Your task to perform on an android device: delete location history Image 0: 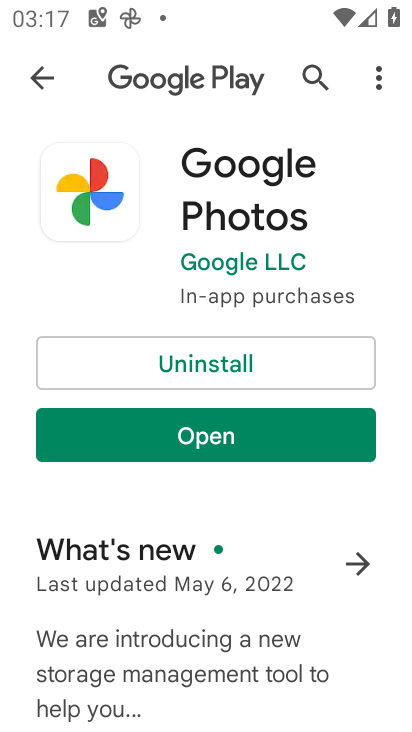
Step 0: press home button
Your task to perform on an android device: delete location history Image 1: 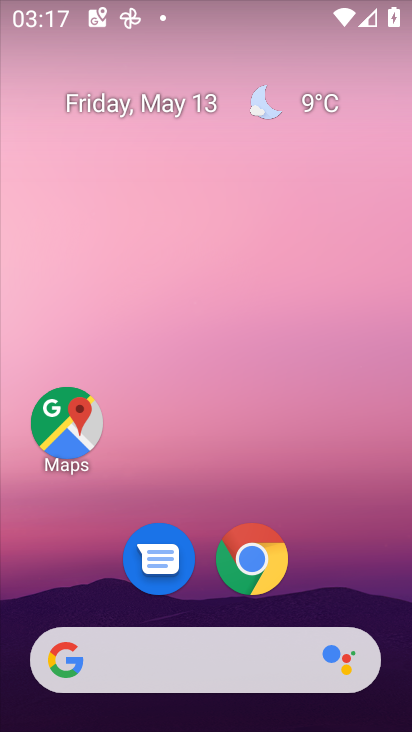
Step 1: click (80, 429)
Your task to perform on an android device: delete location history Image 2: 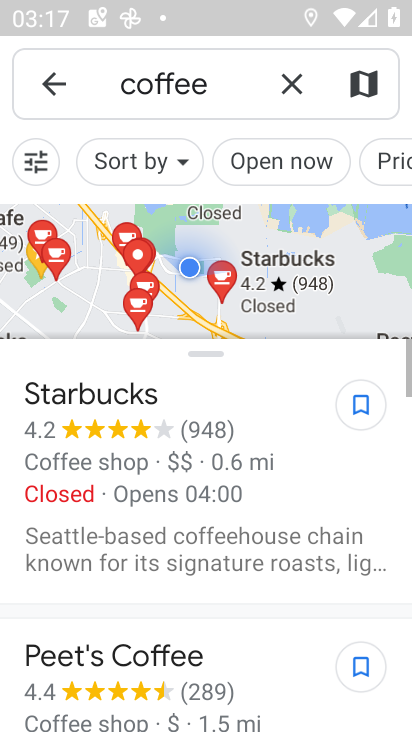
Step 2: click (58, 79)
Your task to perform on an android device: delete location history Image 3: 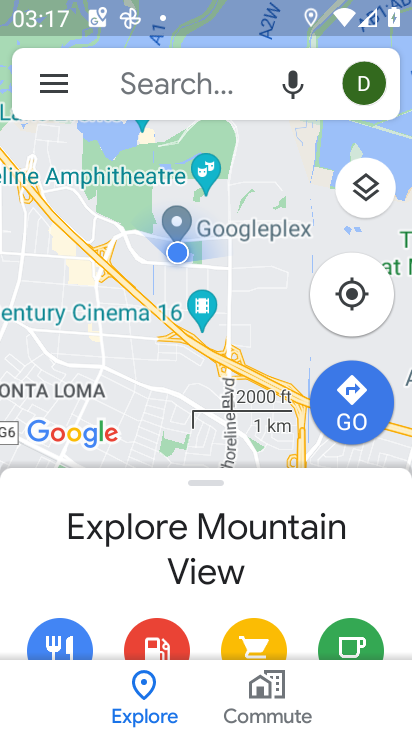
Step 3: click (45, 76)
Your task to perform on an android device: delete location history Image 4: 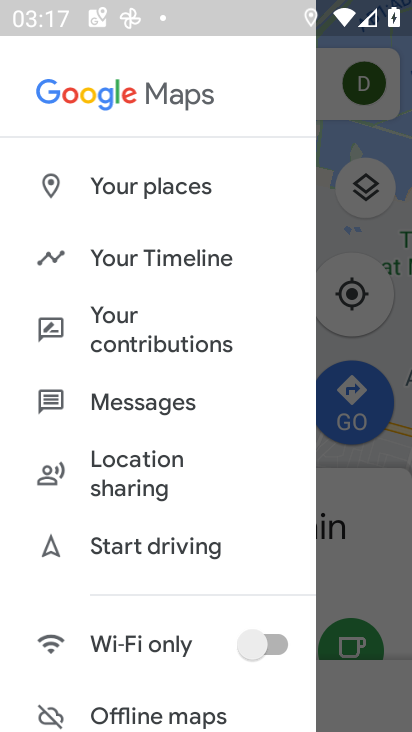
Step 4: click (125, 256)
Your task to perform on an android device: delete location history Image 5: 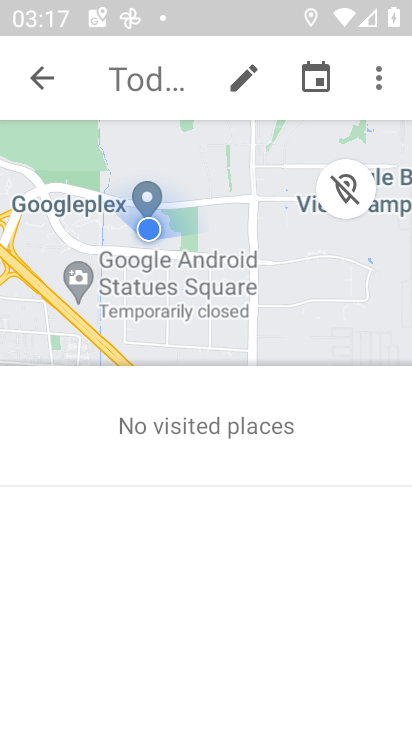
Step 5: click (379, 73)
Your task to perform on an android device: delete location history Image 6: 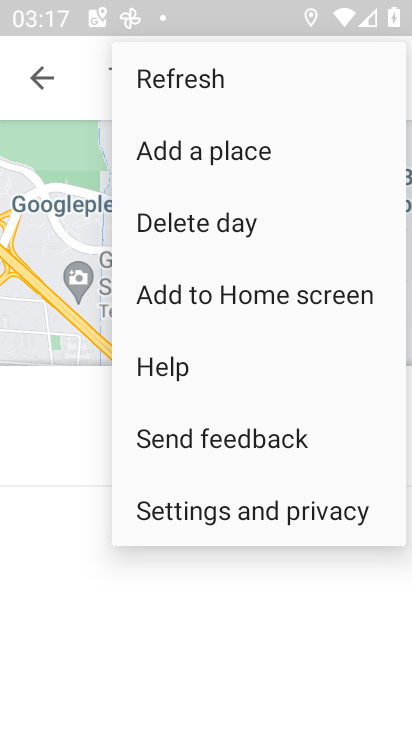
Step 6: click (224, 517)
Your task to perform on an android device: delete location history Image 7: 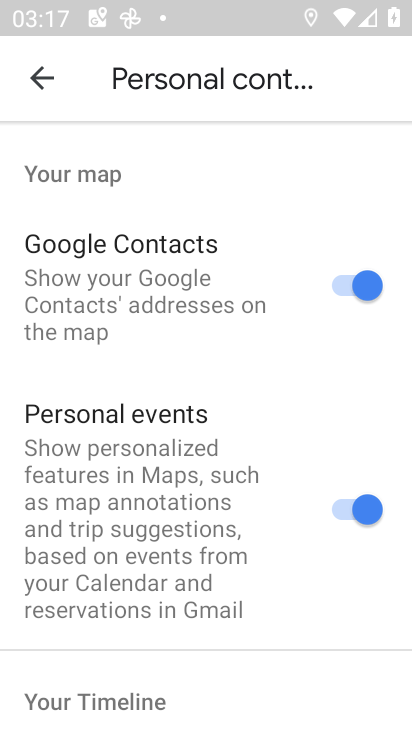
Step 7: drag from (247, 595) to (247, 405)
Your task to perform on an android device: delete location history Image 8: 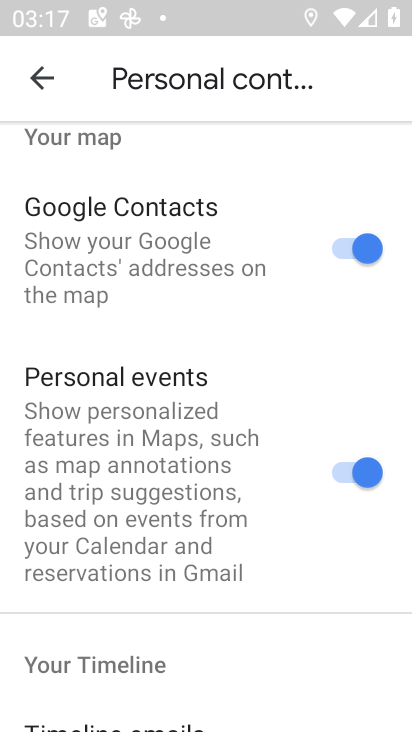
Step 8: drag from (236, 627) to (233, 453)
Your task to perform on an android device: delete location history Image 9: 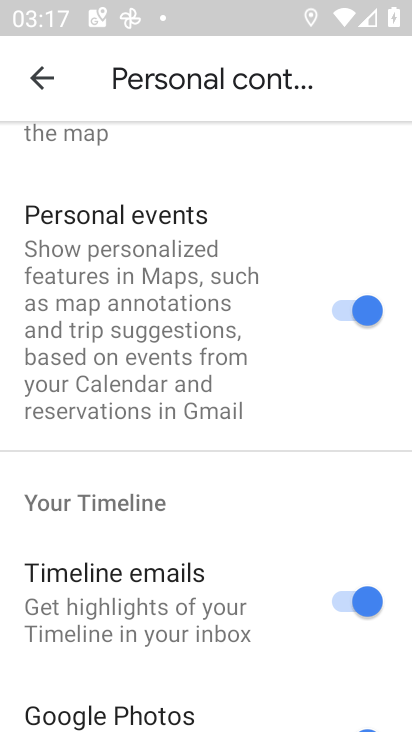
Step 9: drag from (238, 548) to (267, 374)
Your task to perform on an android device: delete location history Image 10: 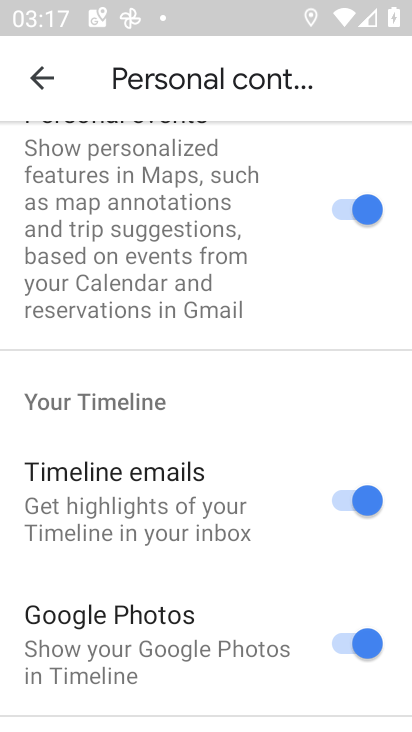
Step 10: drag from (252, 605) to (257, 324)
Your task to perform on an android device: delete location history Image 11: 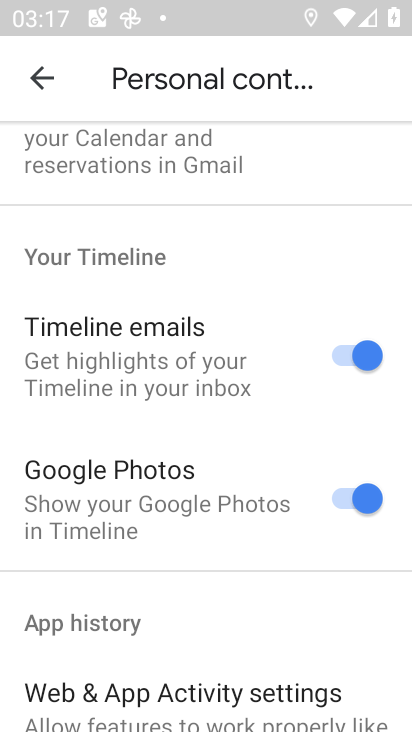
Step 11: drag from (194, 678) to (195, 431)
Your task to perform on an android device: delete location history Image 12: 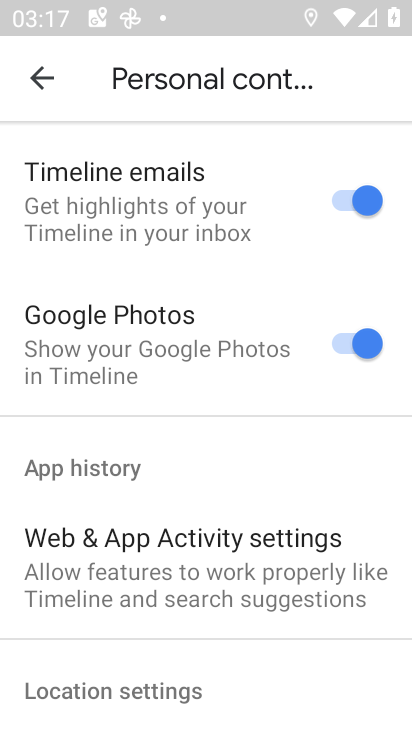
Step 12: drag from (214, 615) to (229, 401)
Your task to perform on an android device: delete location history Image 13: 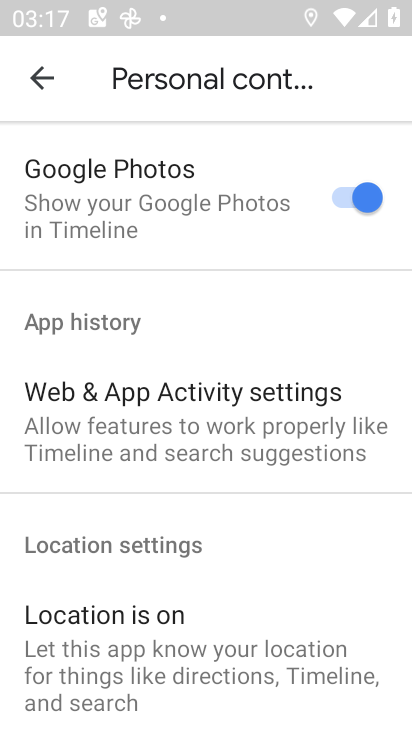
Step 13: drag from (173, 668) to (199, 439)
Your task to perform on an android device: delete location history Image 14: 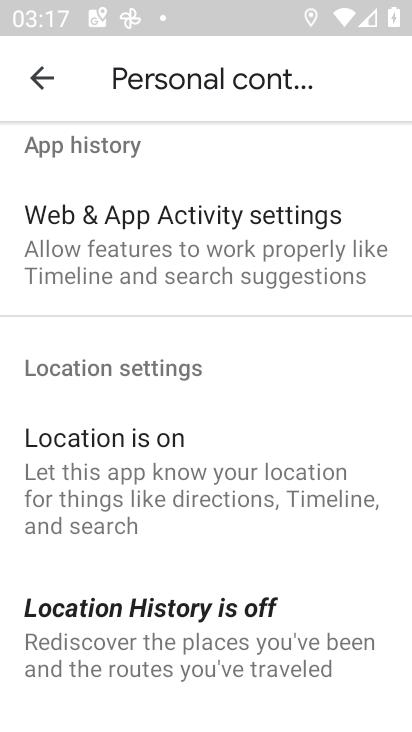
Step 14: drag from (212, 662) to (228, 476)
Your task to perform on an android device: delete location history Image 15: 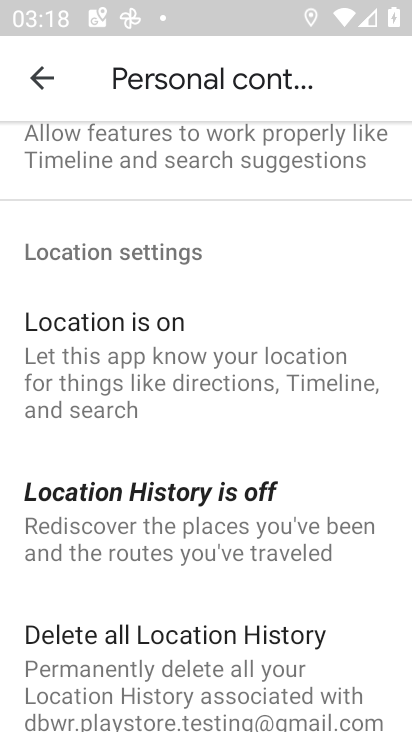
Step 15: drag from (230, 443) to (261, 269)
Your task to perform on an android device: delete location history Image 16: 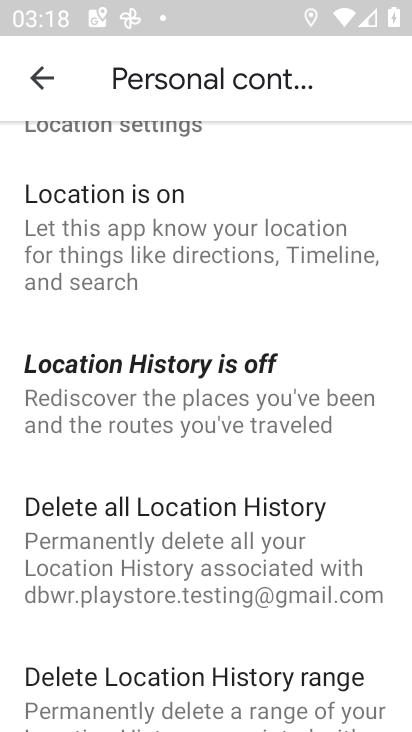
Step 16: click (134, 545)
Your task to perform on an android device: delete location history Image 17: 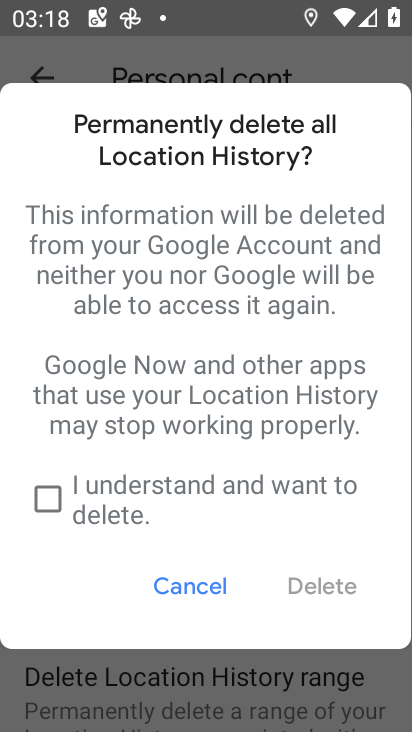
Step 17: click (50, 498)
Your task to perform on an android device: delete location history Image 18: 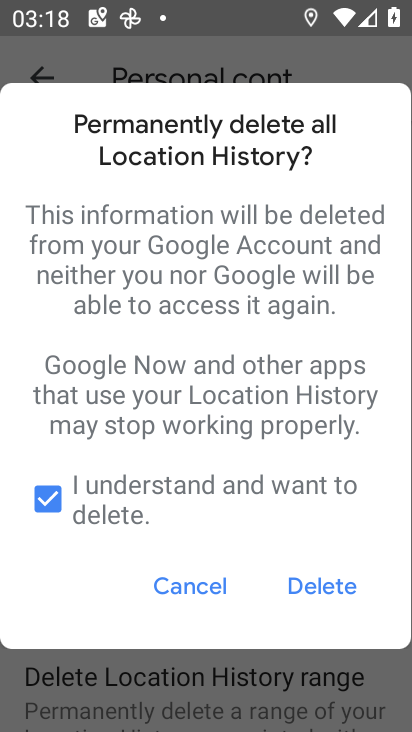
Step 18: click (295, 589)
Your task to perform on an android device: delete location history Image 19: 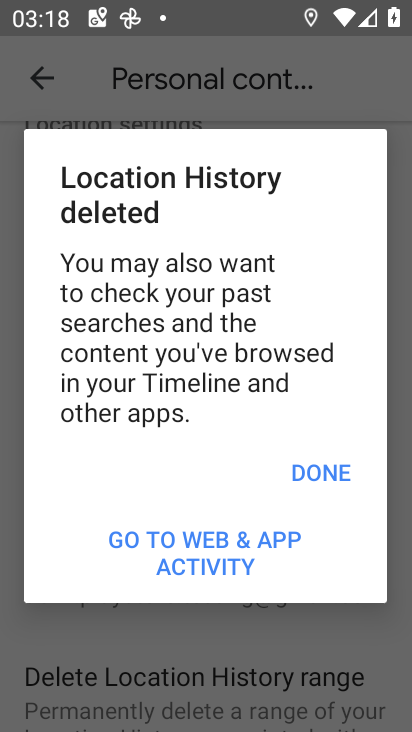
Step 19: click (317, 474)
Your task to perform on an android device: delete location history Image 20: 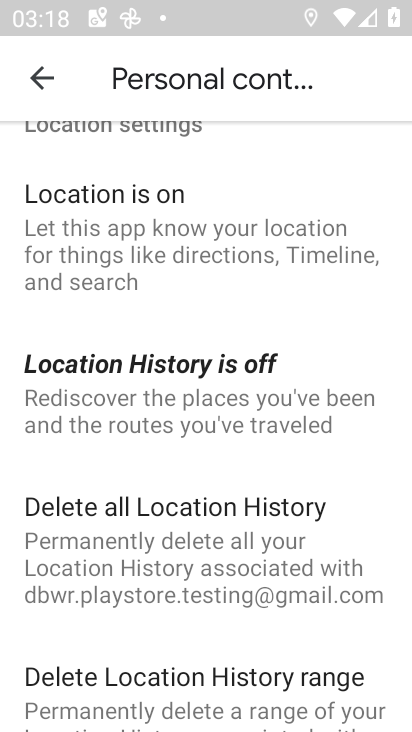
Step 20: task complete